Your task to perform on an android device: What's the weather going to be tomorrow? Image 0: 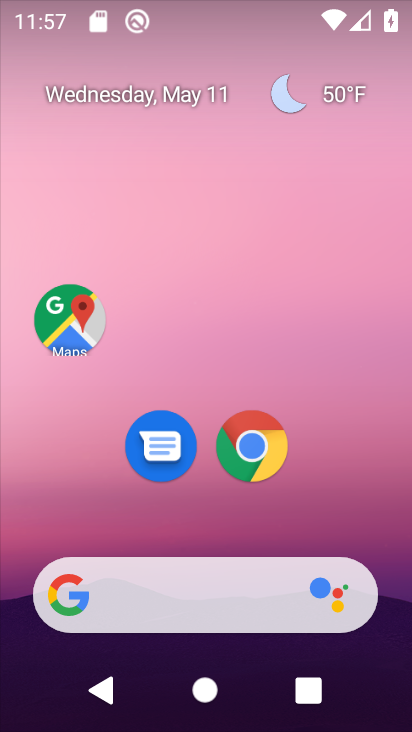
Step 0: click (193, 590)
Your task to perform on an android device: What's the weather going to be tomorrow? Image 1: 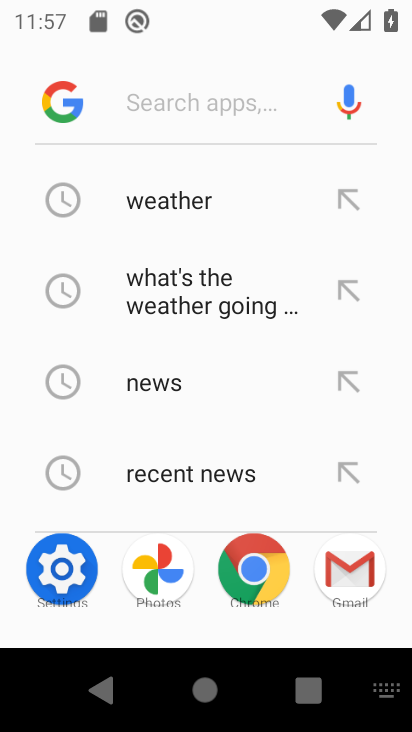
Step 1: click (202, 206)
Your task to perform on an android device: What's the weather going to be tomorrow? Image 2: 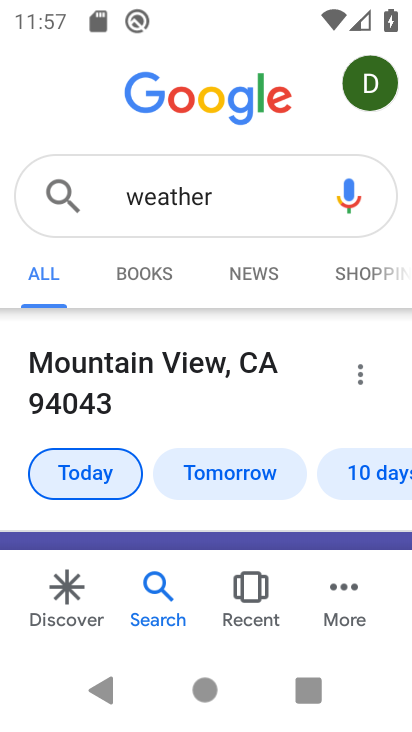
Step 2: click (215, 475)
Your task to perform on an android device: What's the weather going to be tomorrow? Image 3: 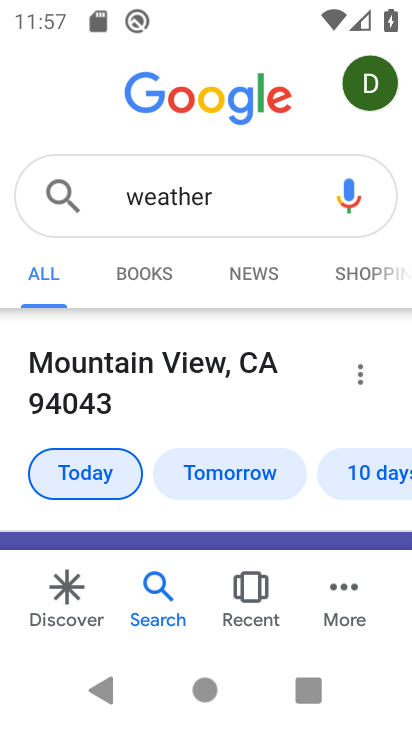
Step 3: click (215, 475)
Your task to perform on an android device: What's the weather going to be tomorrow? Image 4: 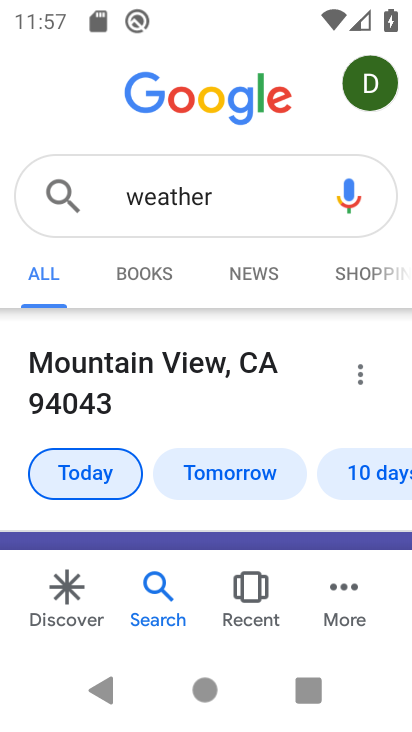
Step 4: click (280, 477)
Your task to perform on an android device: What's the weather going to be tomorrow? Image 5: 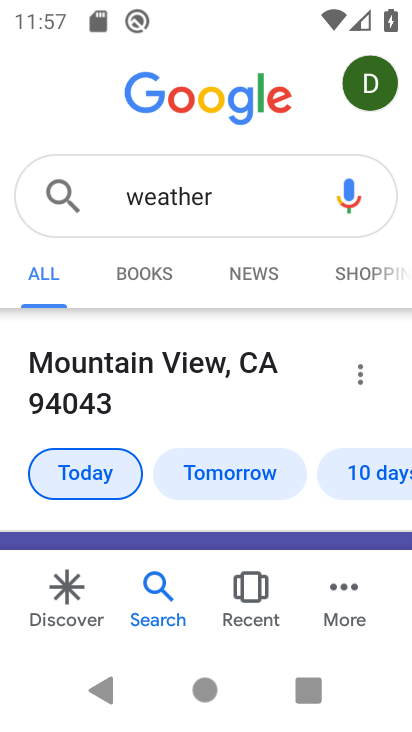
Step 5: click (280, 477)
Your task to perform on an android device: What's the weather going to be tomorrow? Image 6: 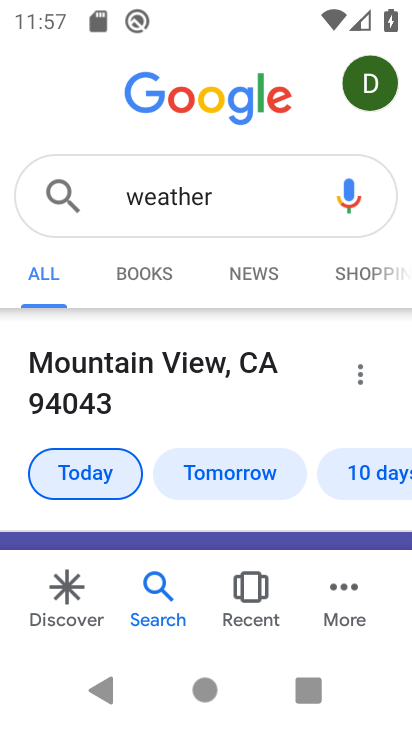
Step 6: click (281, 478)
Your task to perform on an android device: What's the weather going to be tomorrow? Image 7: 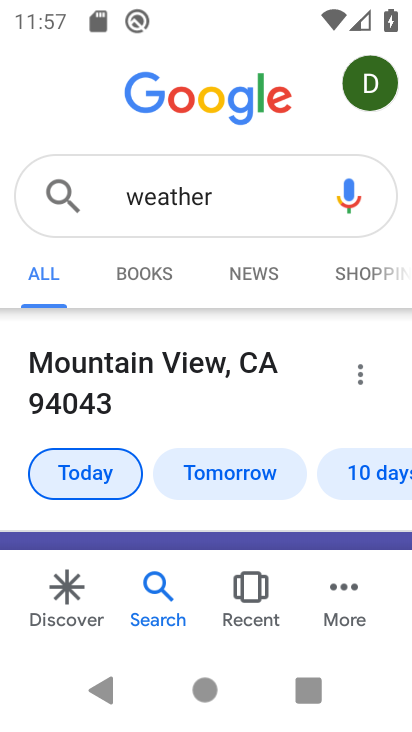
Step 7: click (282, 478)
Your task to perform on an android device: What's the weather going to be tomorrow? Image 8: 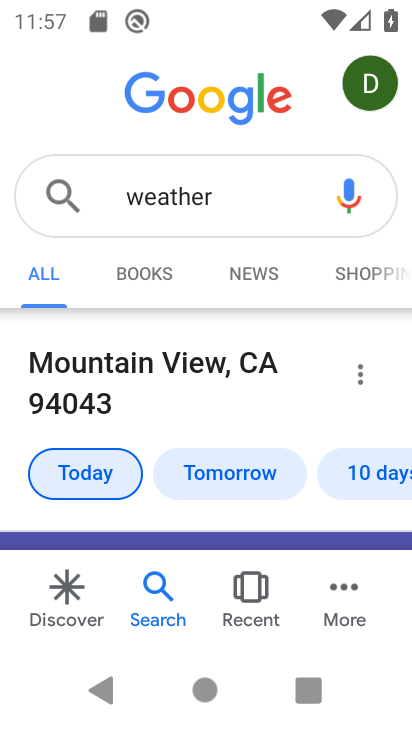
Step 8: click (282, 478)
Your task to perform on an android device: What's the weather going to be tomorrow? Image 9: 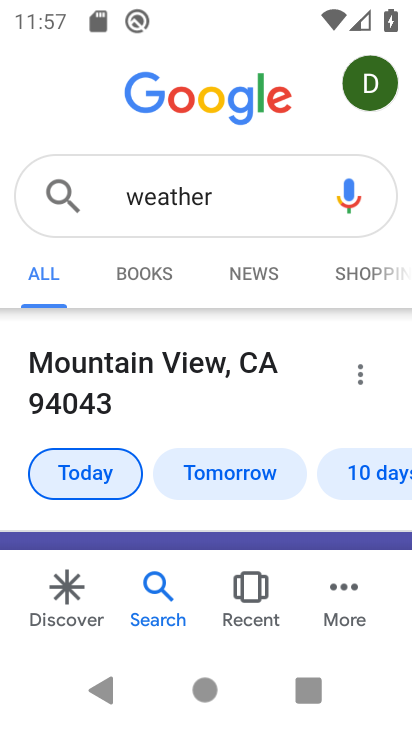
Step 9: click (274, 473)
Your task to perform on an android device: What's the weather going to be tomorrow? Image 10: 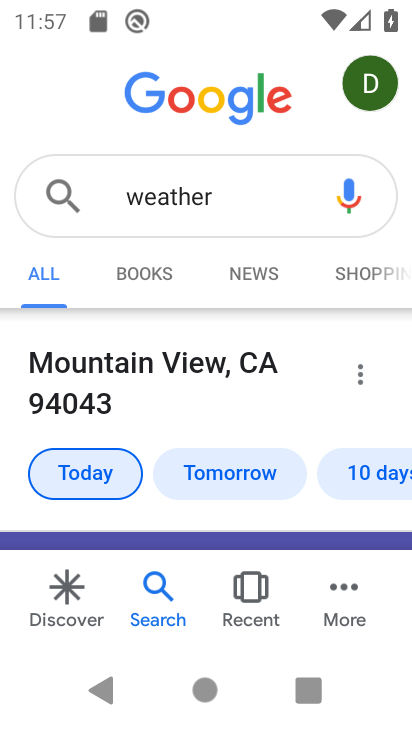
Step 10: click (274, 473)
Your task to perform on an android device: What's the weather going to be tomorrow? Image 11: 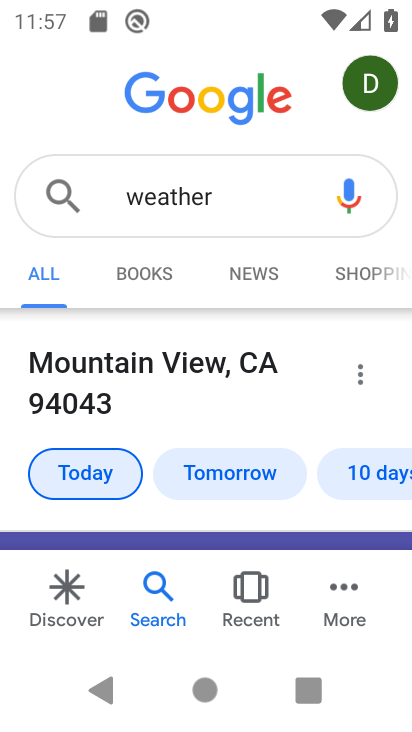
Step 11: drag from (297, 547) to (305, 256)
Your task to perform on an android device: What's the weather going to be tomorrow? Image 12: 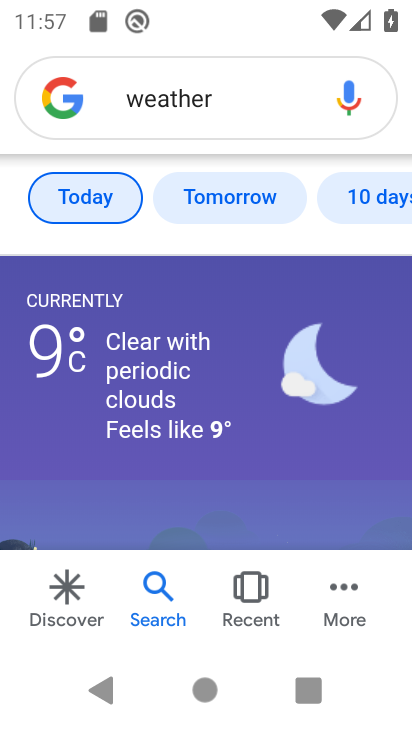
Step 12: click (266, 210)
Your task to perform on an android device: What's the weather going to be tomorrow? Image 13: 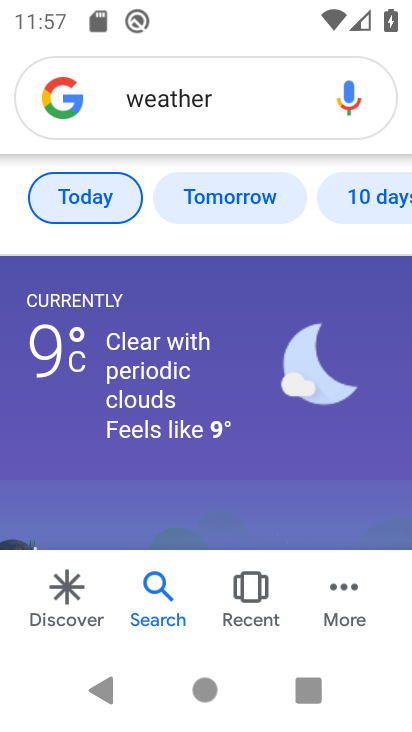
Step 13: click (255, 204)
Your task to perform on an android device: What's the weather going to be tomorrow? Image 14: 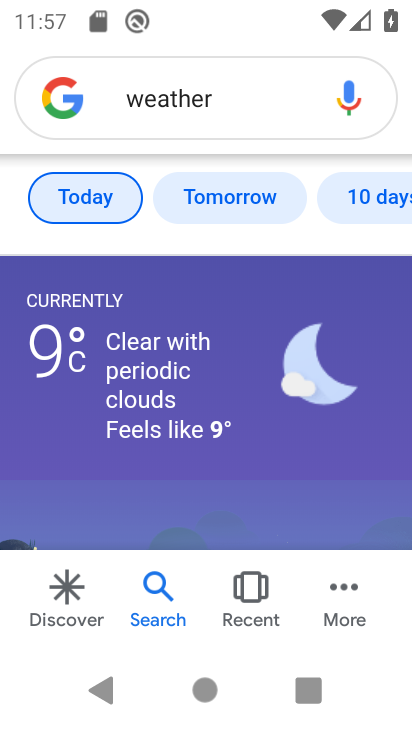
Step 14: click (255, 204)
Your task to perform on an android device: What's the weather going to be tomorrow? Image 15: 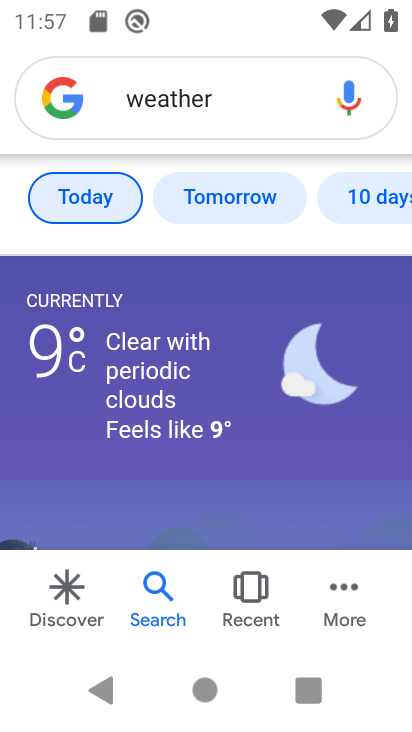
Step 15: click (253, 196)
Your task to perform on an android device: What's the weather going to be tomorrow? Image 16: 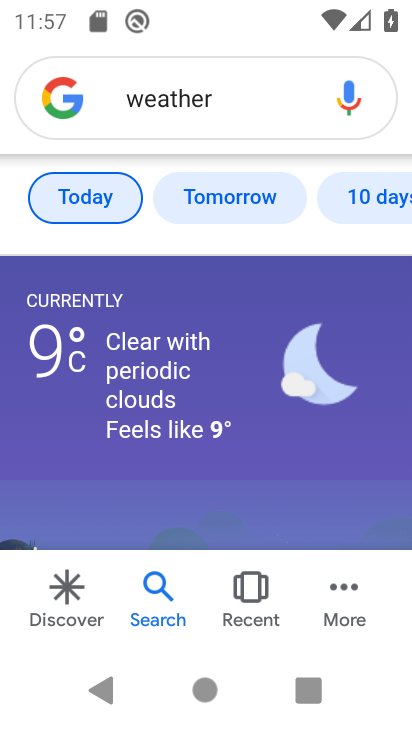
Step 16: click (253, 196)
Your task to perform on an android device: What's the weather going to be tomorrow? Image 17: 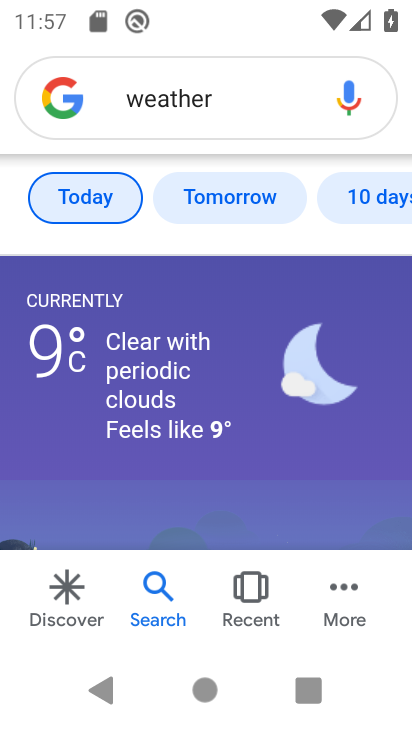
Step 17: click (253, 196)
Your task to perform on an android device: What's the weather going to be tomorrow? Image 18: 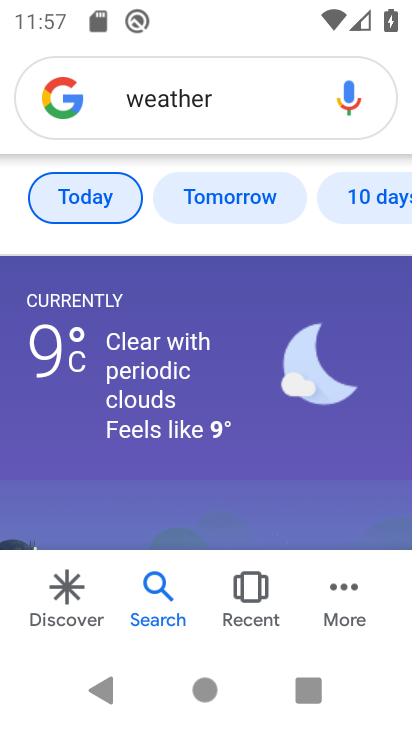
Step 18: click (253, 196)
Your task to perform on an android device: What's the weather going to be tomorrow? Image 19: 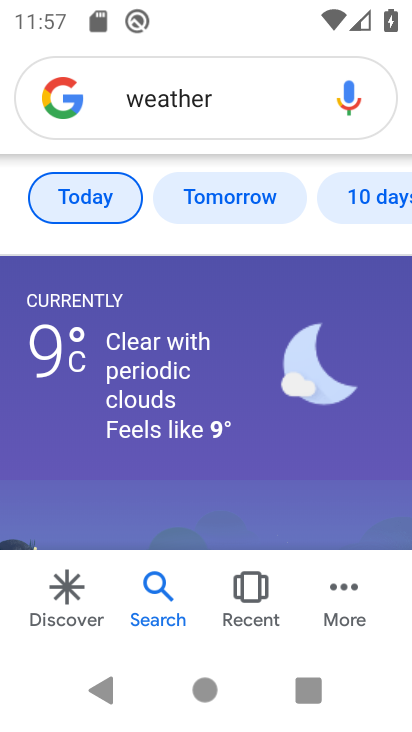
Step 19: click (253, 196)
Your task to perform on an android device: What's the weather going to be tomorrow? Image 20: 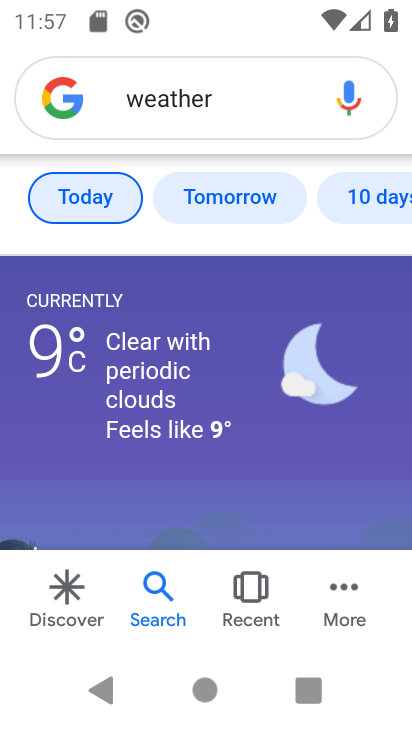
Step 20: click (253, 196)
Your task to perform on an android device: What's the weather going to be tomorrow? Image 21: 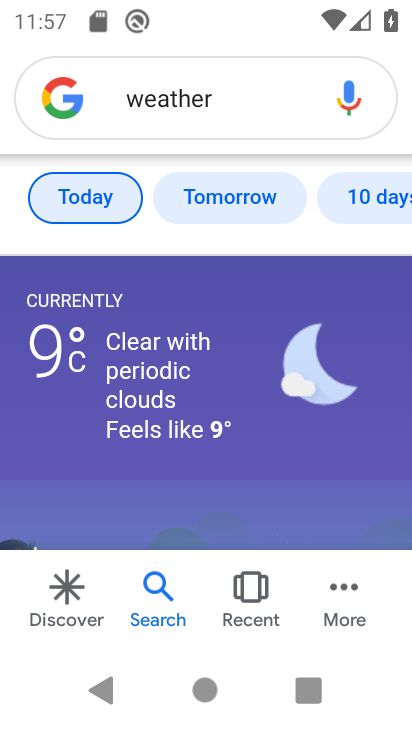
Step 21: click (253, 196)
Your task to perform on an android device: What's the weather going to be tomorrow? Image 22: 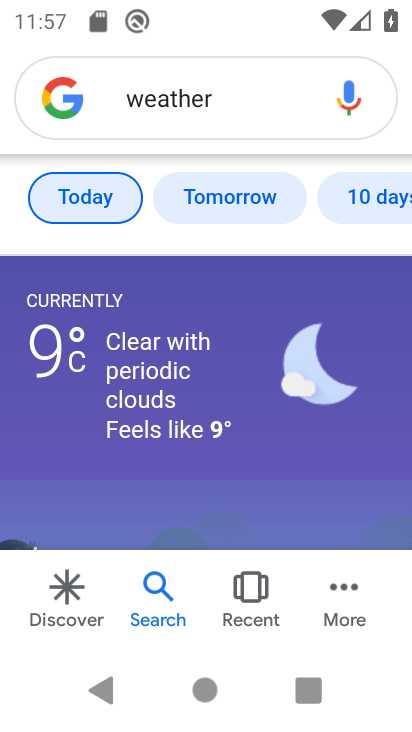
Step 22: click (253, 196)
Your task to perform on an android device: What's the weather going to be tomorrow? Image 23: 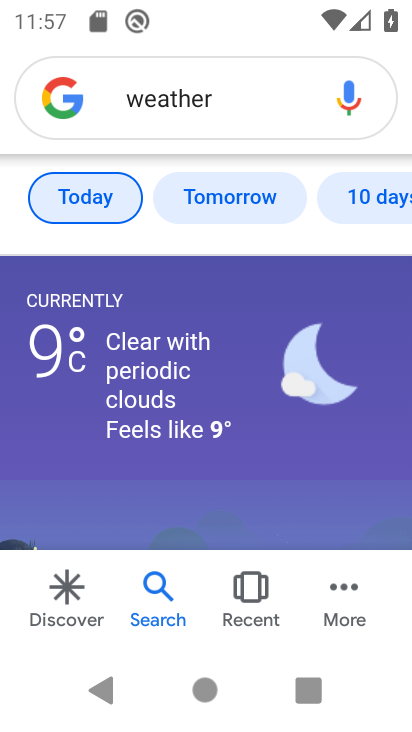
Step 23: click (253, 196)
Your task to perform on an android device: What's the weather going to be tomorrow? Image 24: 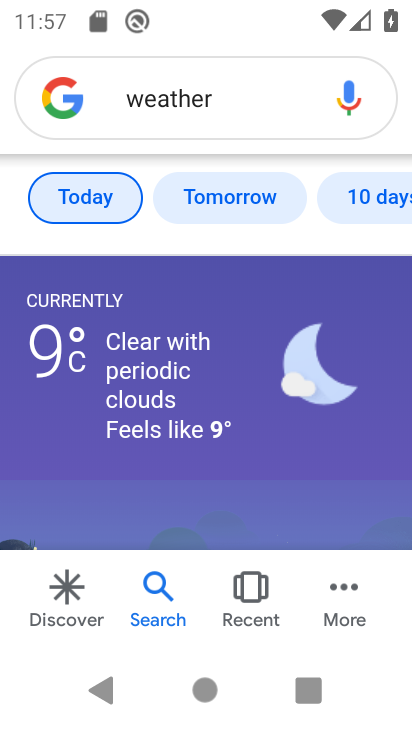
Step 24: click (253, 196)
Your task to perform on an android device: What's the weather going to be tomorrow? Image 25: 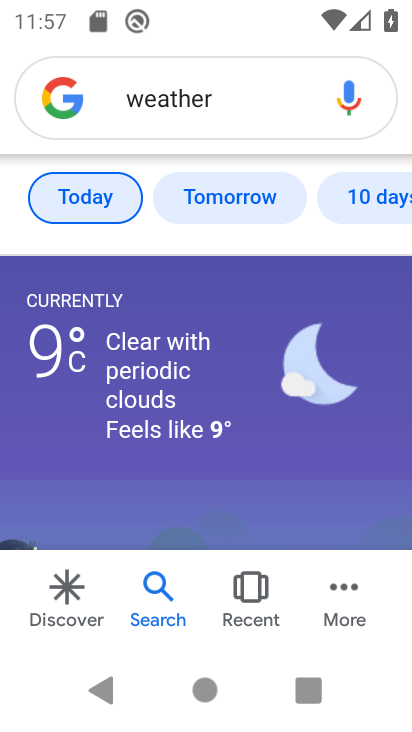
Step 25: click (253, 196)
Your task to perform on an android device: What's the weather going to be tomorrow? Image 26: 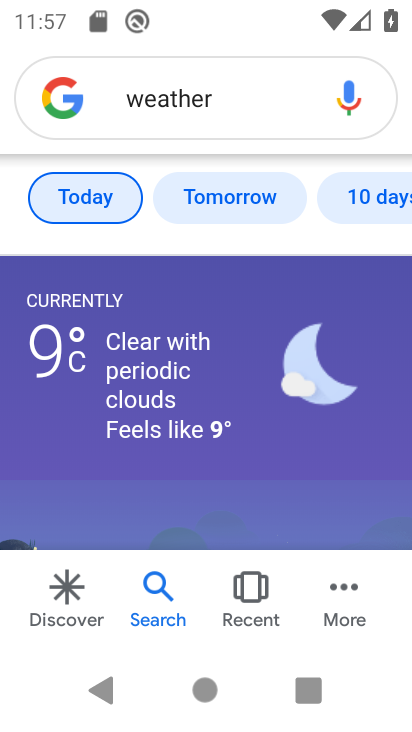
Step 26: click (253, 196)
Your task to perform on an android device: What's the weather going to be tomorrow? Image 27: 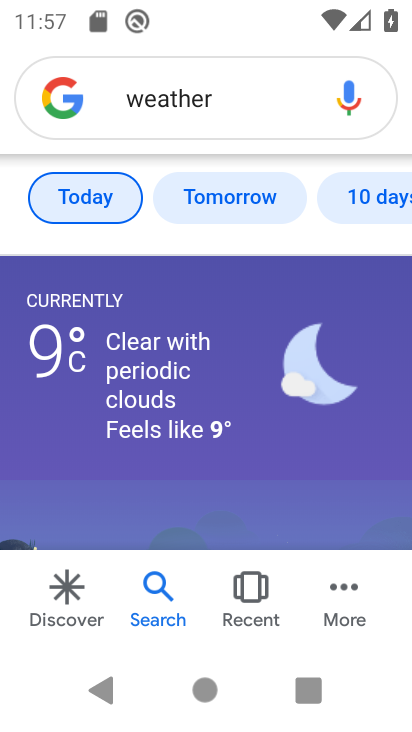
Step 27: click (253, 196)
Your task to perform on an android device: What's the weather going to be tomorrow? Image 28: 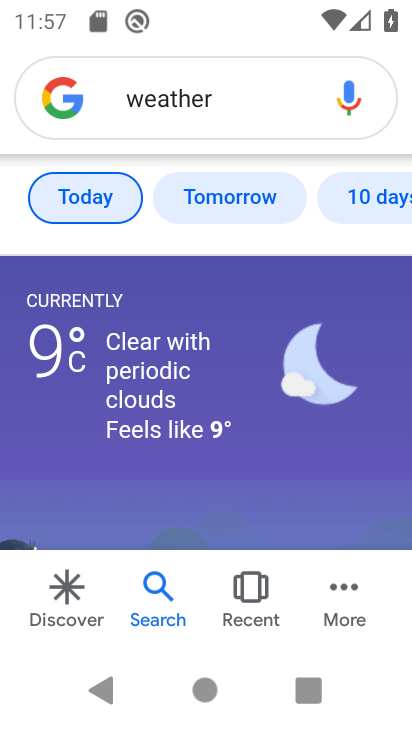
Step 28: click (285, 208)
Your task to perform on an android device: What's the weather going to be tomorrow? Image 29: 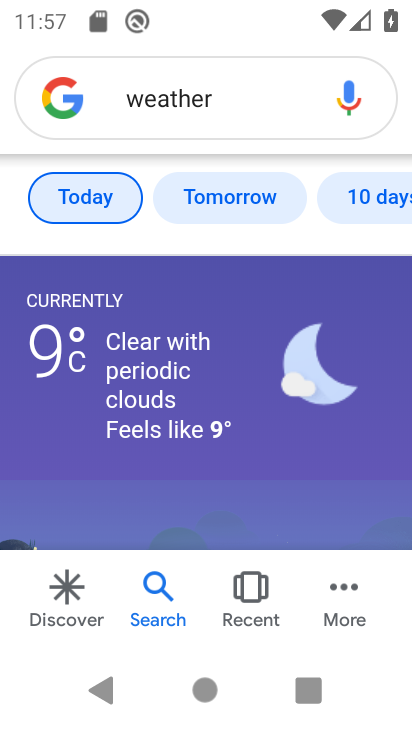
Step 29: click (285, 208)
Your task to perform on an android device: What's the weather going to be tomorrow? Image 30: 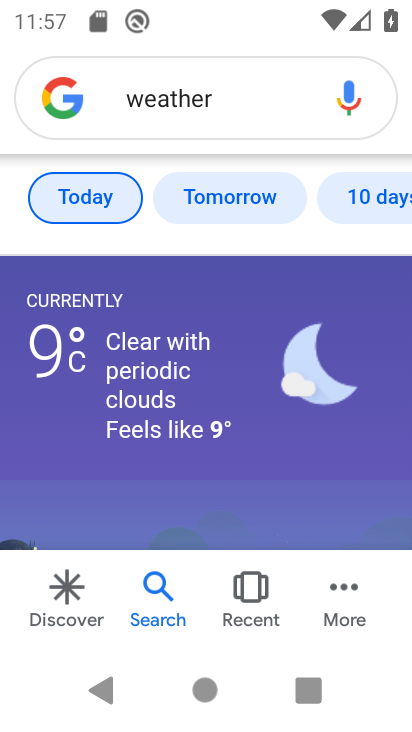
Step 30: click (285, 208)
Your task to perform on an android device: What's the weather going to be tomorrow? Image 31: 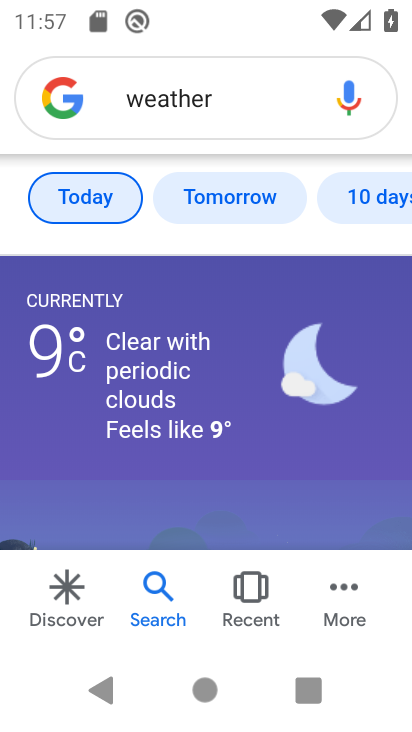
Step 31: click (285, 208)
Your task to perform on an android device: What's the weather going to be tomorrow? Image 32: 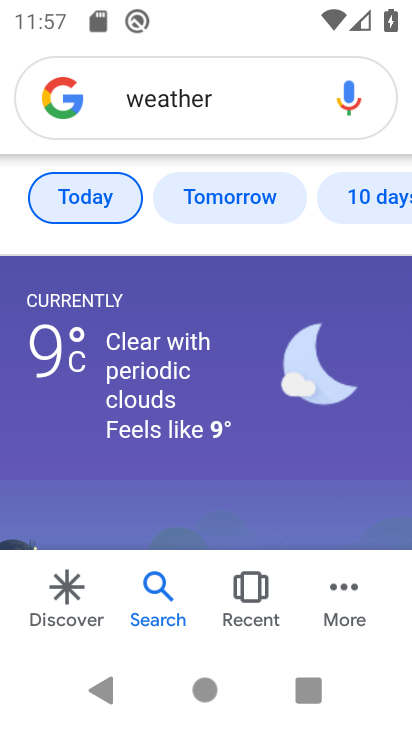
Step 32: click (285, 208)
Your task to perform on an android device: What's the weather going to be tomorrow? Image 33: 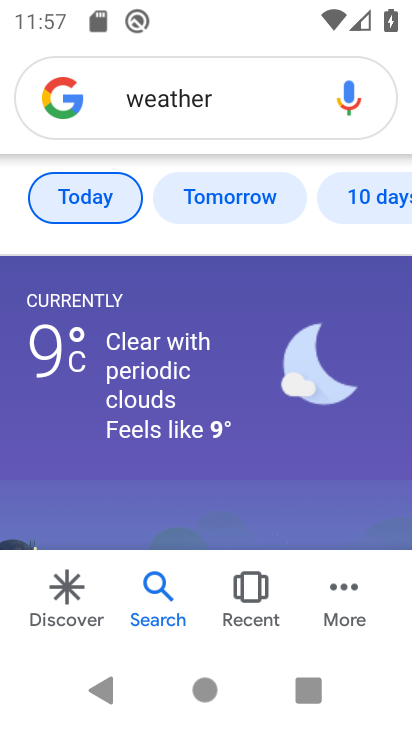
Step 33: click (285, 208)
Your task to perform on an android device: What's the weather going to be tomorrow? Image 34: 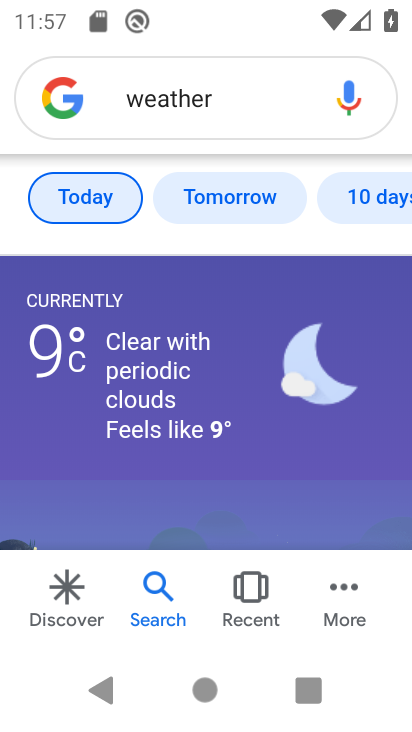
Step 34: click (285, 208)
Your task to perform on an android device: What's the weather going to be tomorrow? Image 35: 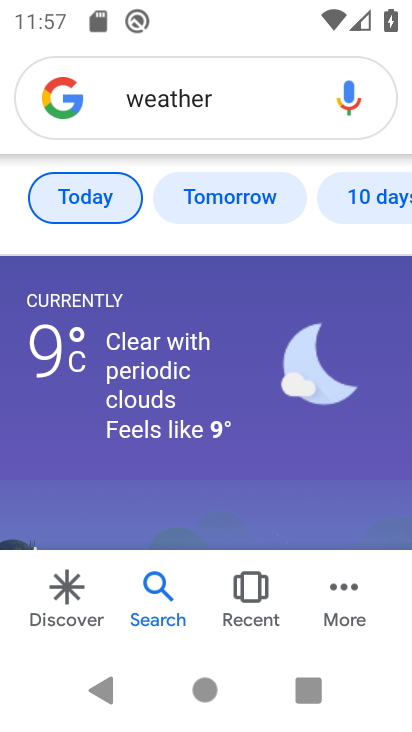
Step 35: click (285, 208)
Your task to perform on an android device: What's the weather going to be tomorrow? Image 36: 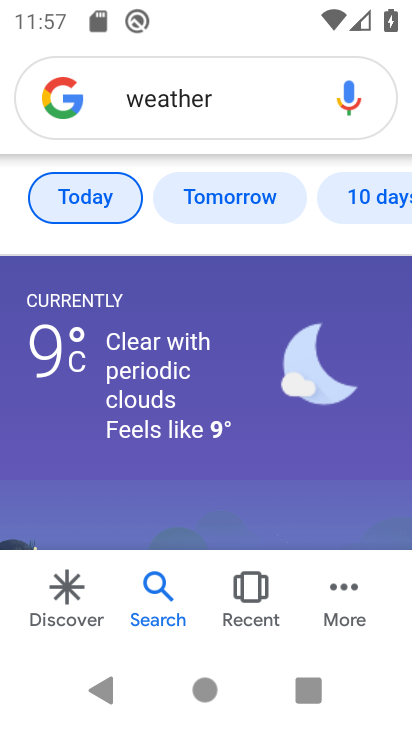
Step 36: click (280, 202)
Your task to perform on an android device: What's the weather going to be tomorrow? Image 37: 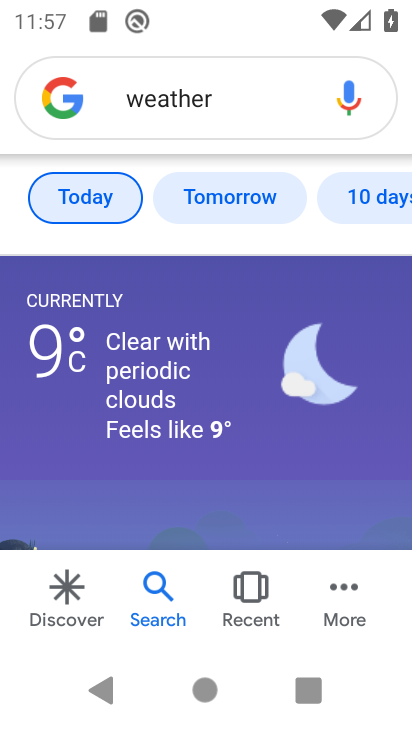
Step 37: click (280, 202)
Your task to perform on an android device: What's the weather going to be tomorrow? Image 38: 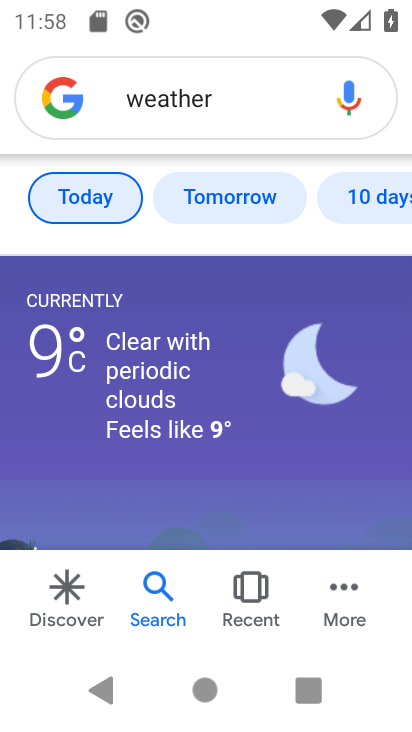
Step 38: click (216, 195)
Your task to perform on an android device: What's the weather going to be tomorrow? Image 39: 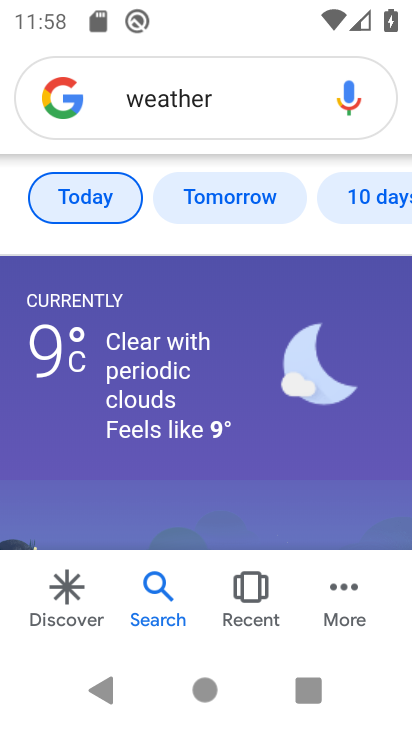
Step 39: click (216, 195)
Your task to perform on an android device: What's the weather going to be tomorrow? Image 40: 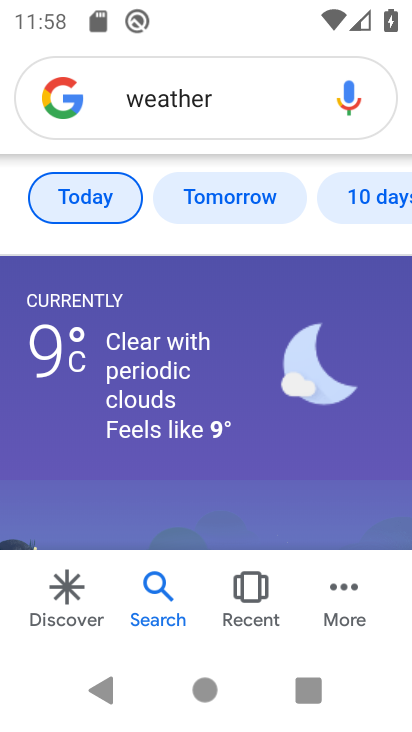
Step 40: task complete